Your task to perform on an android device: What is the recent news? Image 0: 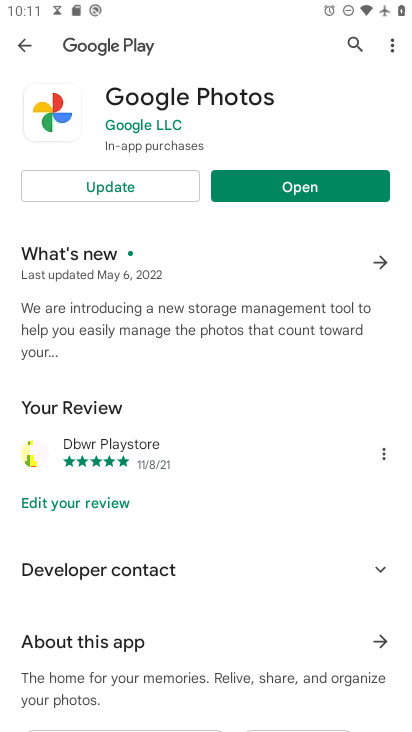
Step 0: press home button
Your task to perform on an android device: What is the recent news? Image 1: 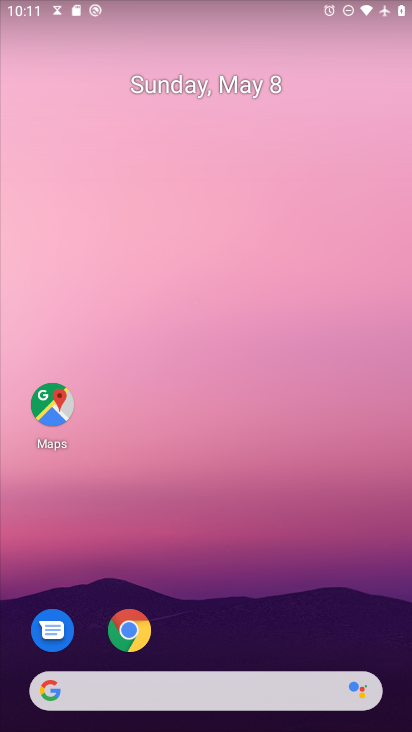
Step 1: click (54, 693)
Your task to perform on an android device: What is the recent news? Image 2: 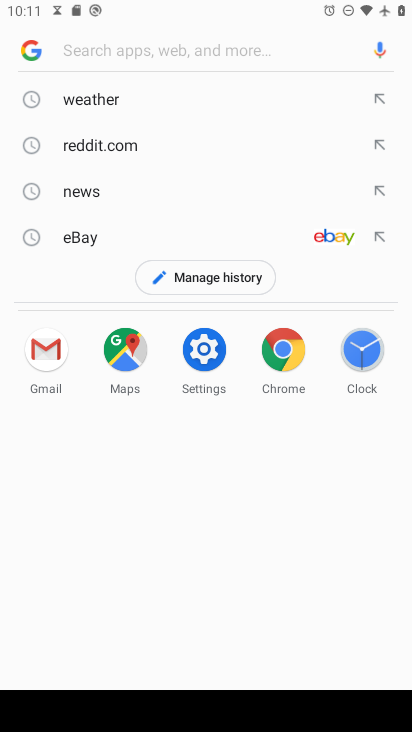
Step 2: click (95, 188)
Your task to perform on an android device: What is the recent news? Image 3: 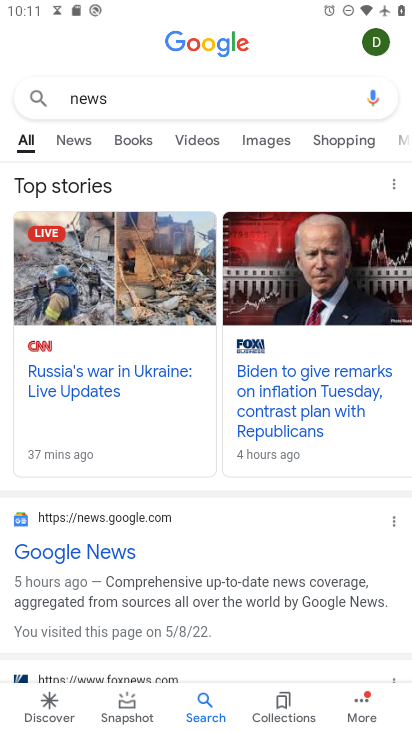
Step 3: task complete